Your task to perform on an android device: open a bookmark in the chrome app Image 0: 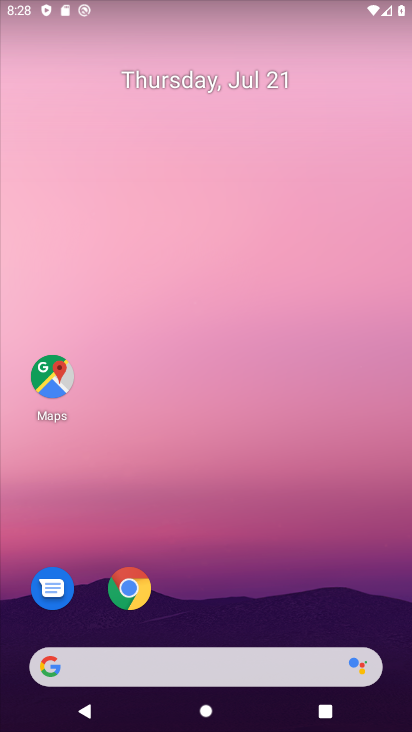
Step 0: drag from (260, 612) to (127, 97)
Your task to perform on an android device: open a bookmark in the chrome app Image 1: 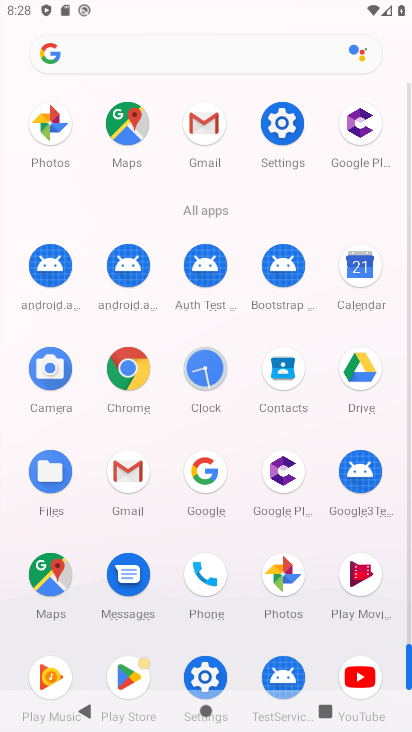
Step 1: click (141, 358)
Your task to perform on an android device: open a bookmark in the chrome app Image 2: 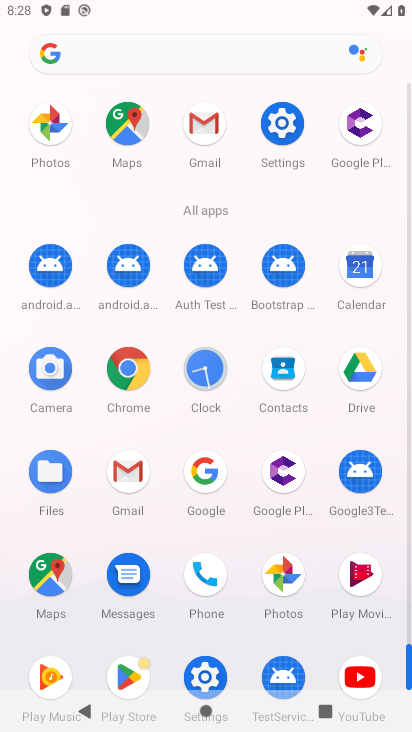
Step 2: click (135, 366)
Your task to perform on an android device: open a bookmark in the chrome app Image 3: 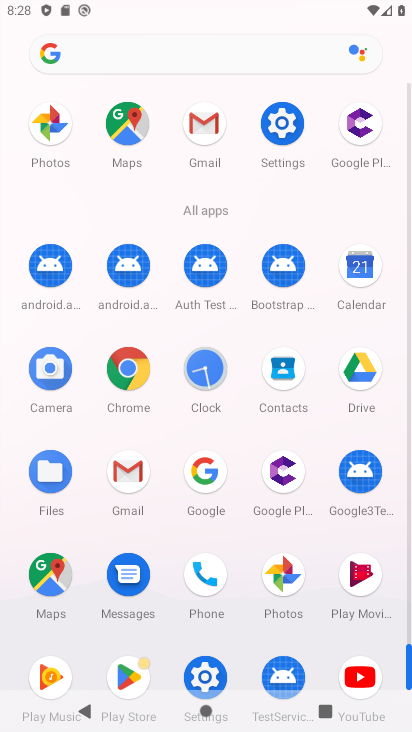
Step 3: click (137, 368)
Your task to perform on an android device: open a bookmark in the chrome app Image 4: 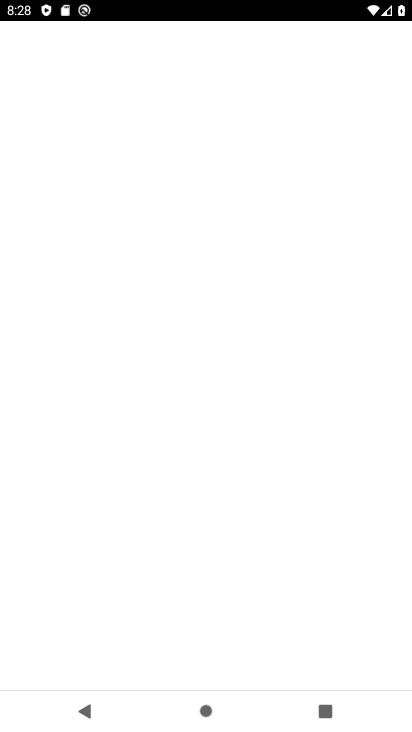
Step 4: click (135, 372)
Your task to perform on an android device: open a bookmark in the chrome app Image 5: 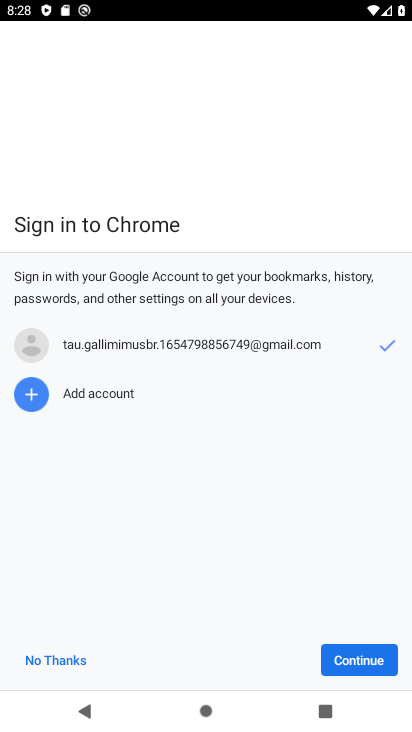
Step 5: click (62, 662)
Your task to perform on an android device: open a bookmark in the chrome app Image 6: 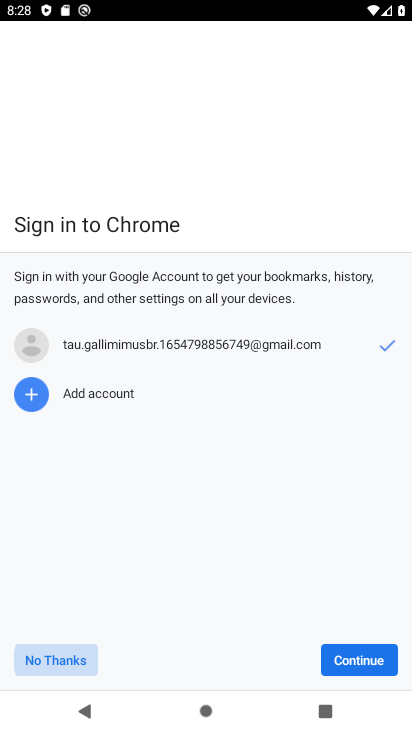
Step 6: click (62, 659)
Your task to perform on an android device: open a bookmark in the chrome app Image 7: 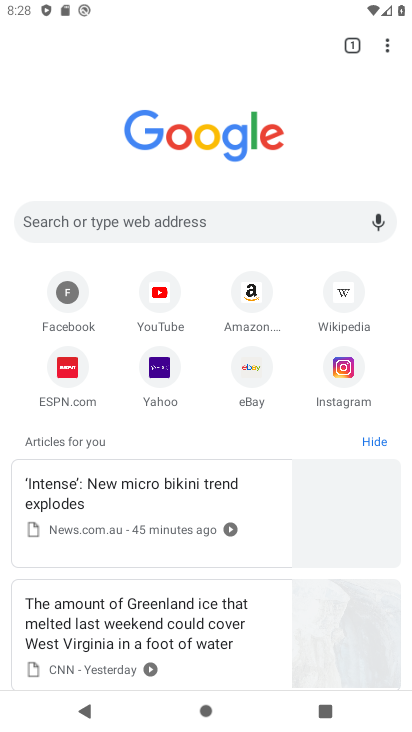
Step 7: click (385, 44)
Your task to perform on an android device: open a bookmark in the chrome app Image 8: 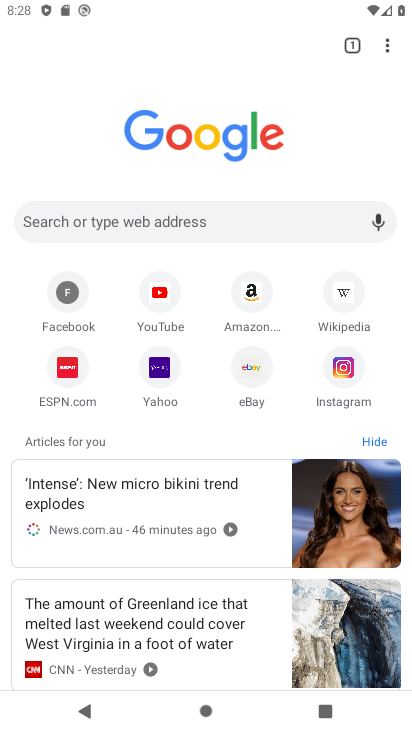
Step 8: click (390, 47)
Your task to perform on an android device: open a bookmark in the chrome app Image 9: 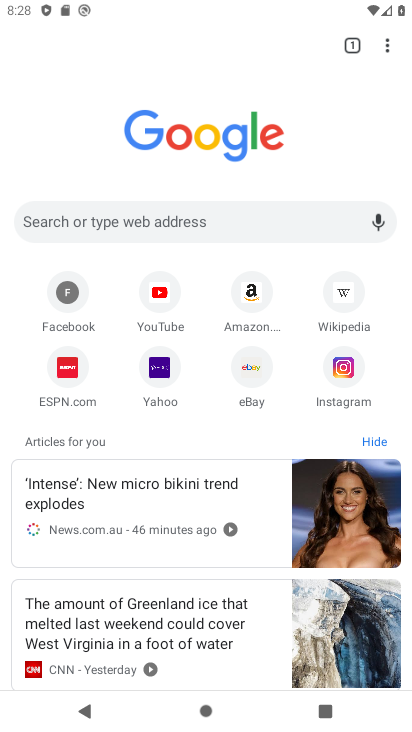
Step 9: click (389, 40)
Your task to perform on an android device: open a bookmark in the chrome app Image 10: 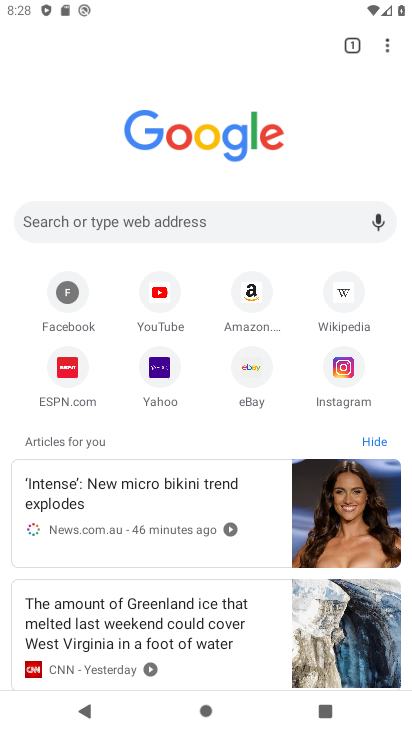
Step 10: click (390, 39)
Your task to perform on an android device: open a bookmark in the chrome app Image 11: 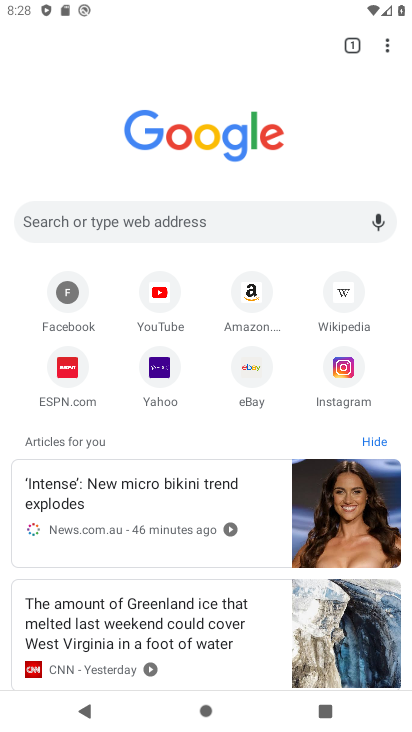
Step 11: drag from (383, 50) to (211, 179)
Your task to perform on an android device: open a bookmark in the chrome app Image 12: 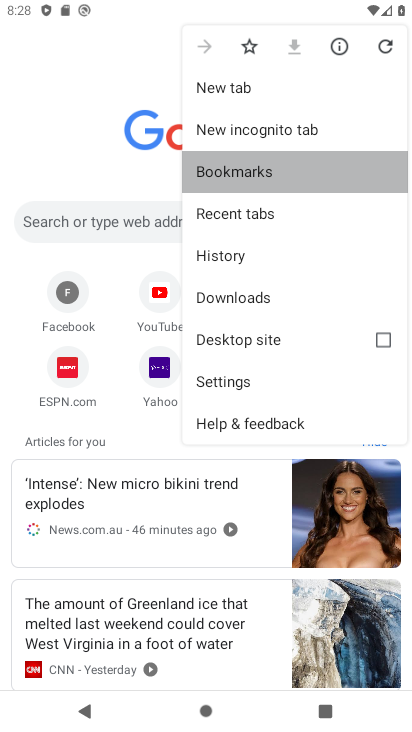
Step 12: click (211, 179)
Your task to perform on an android device: open a bookmark in the chrome app Image 13: 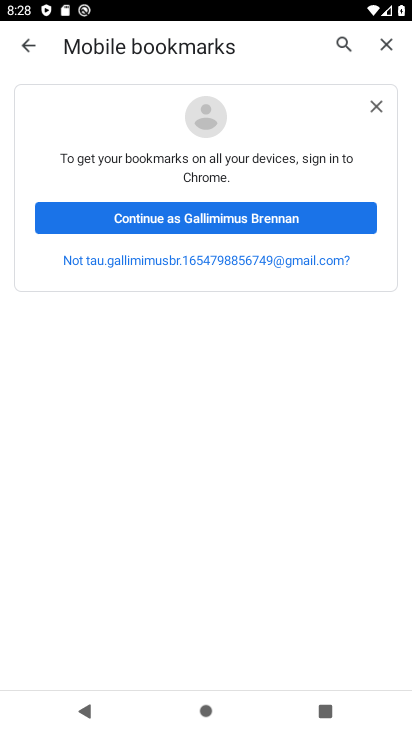
Step 13: click (372, 107)
Your task to perform on an android device: open a bookmark in the chrome app Image 14: 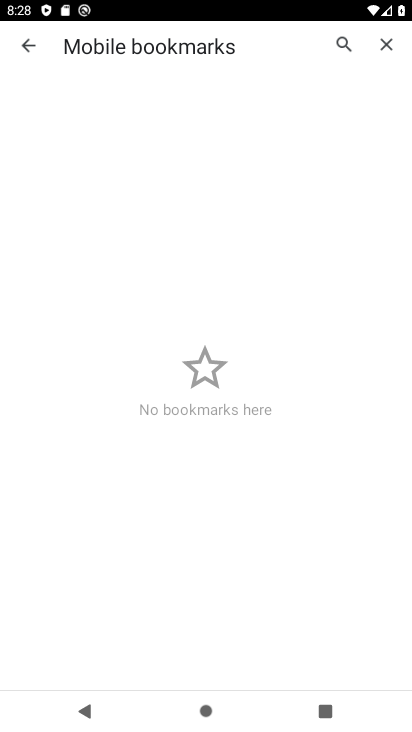
Step 14: task complete